Your task to perform on an android device: change your default location settings in chrome Image 0: 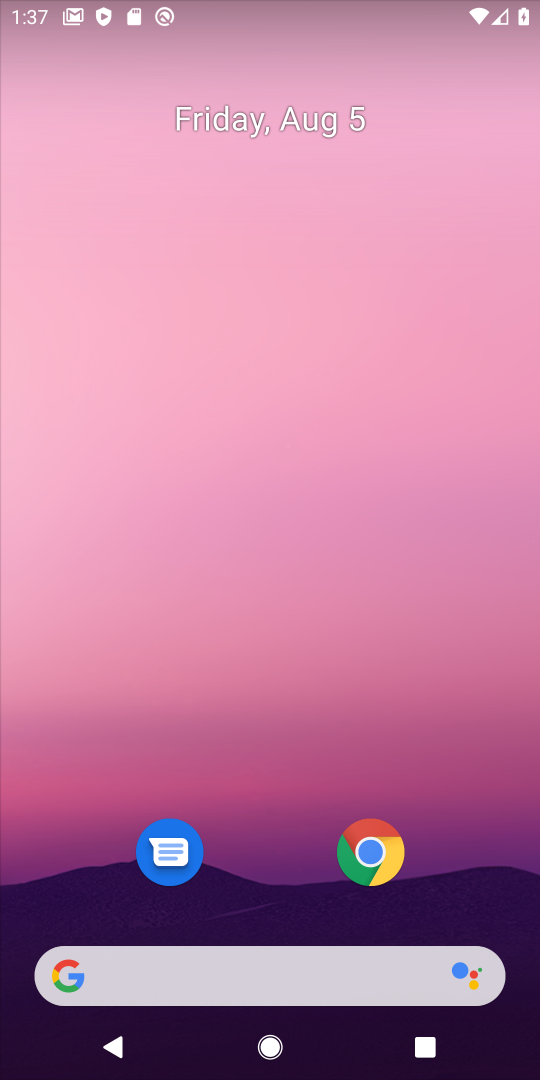
Step 0: click (375, 852)
Your task to perform on an android device: change your default location settings in chrome Image 1: 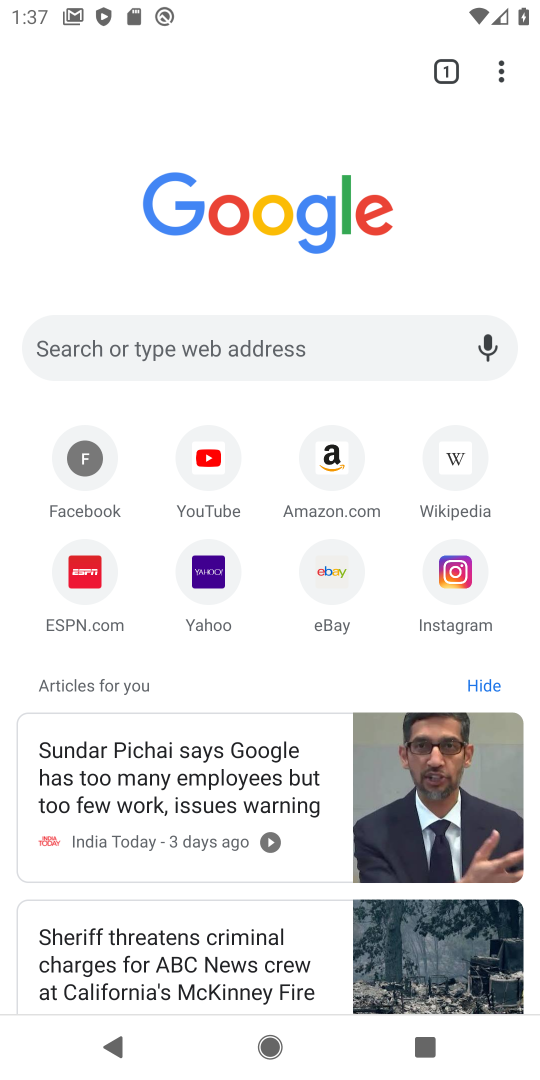
Step 1: click (500, 72)
Your task to perform on an android device: change your default location settings in chrome Image 2: 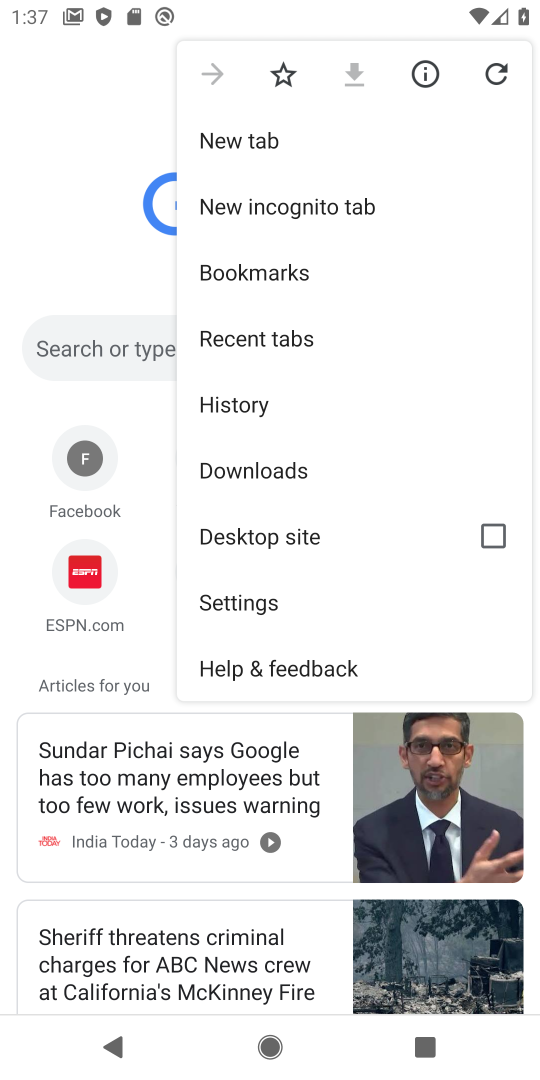
Step 2: click (255, 606)
Your task to perform on an android device: change your default location settings in chrome Image 3: 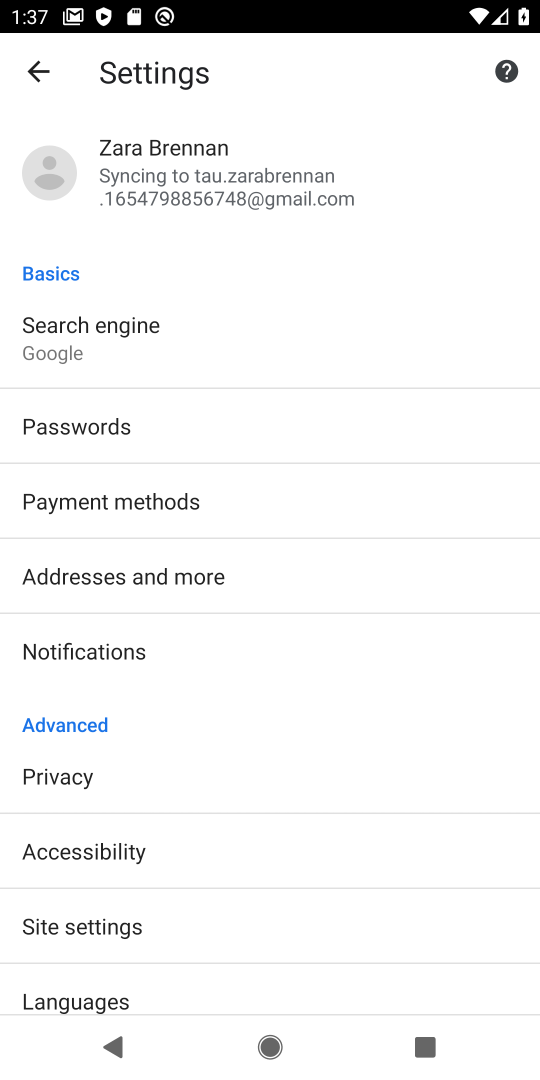
Step 3: click (78, 915)
Your task to perform on an android device: change your default location settings in chrome Image 4: 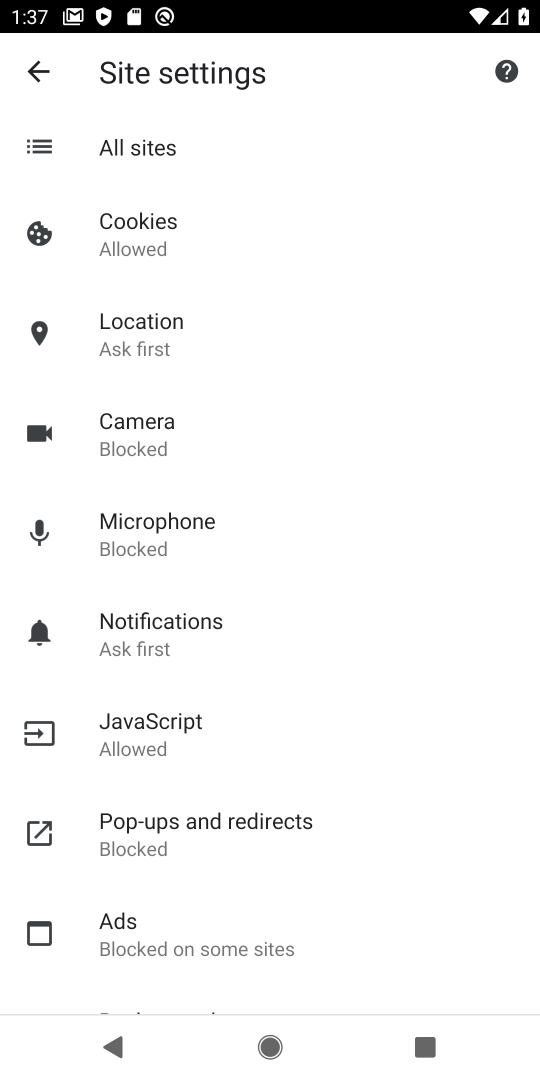
Step 4: click (146, 327)
Your task to perform on an android device: change your default location settings in chrome Image 5: 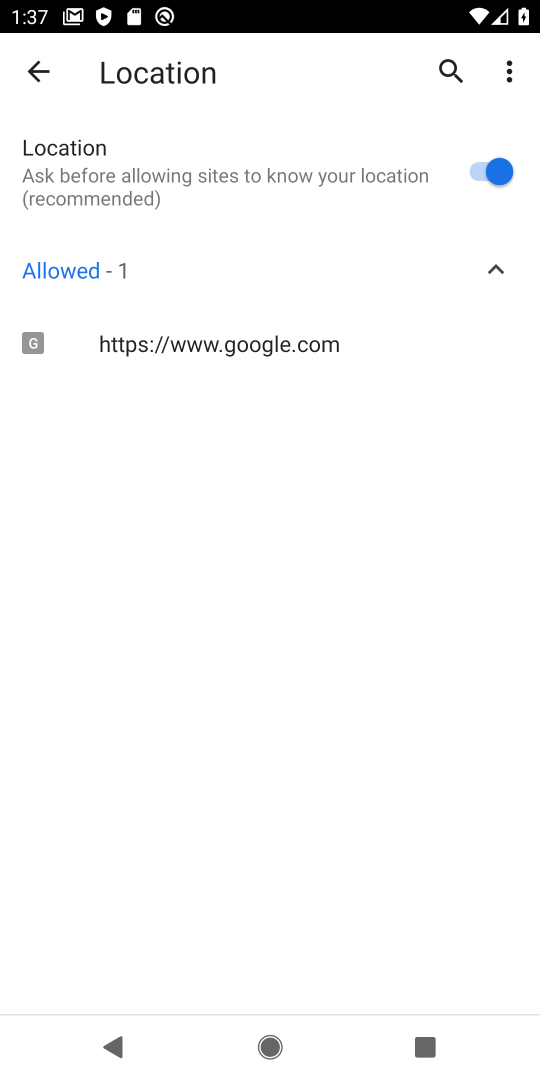
Step 5: click (510, 171)
Your task to perform on an android device: change your default location settings in chrome Image 6: 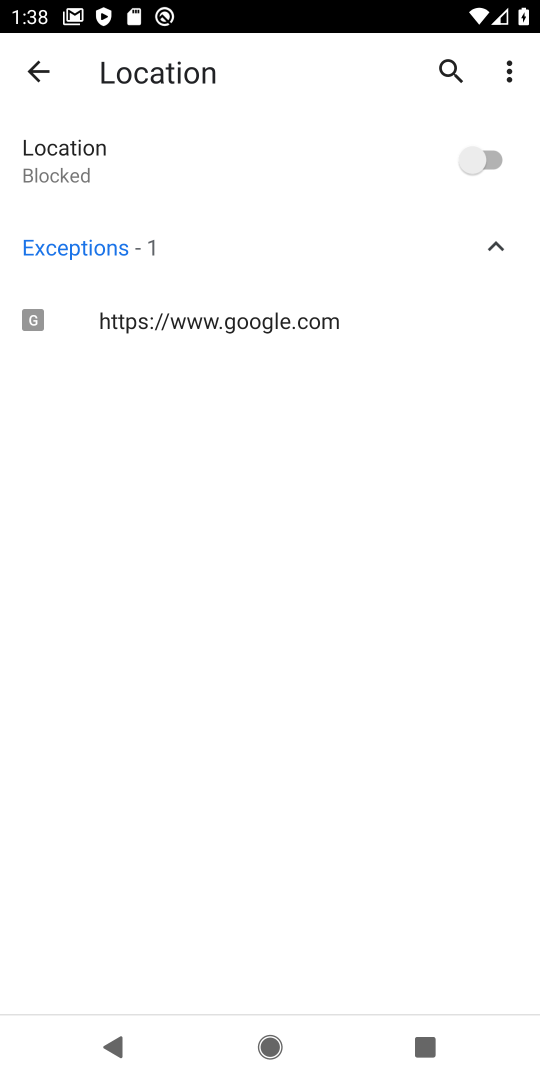
Step 6: task complete